Your task to perform on an android device: Play the last video I watched on Youtube Image 0: 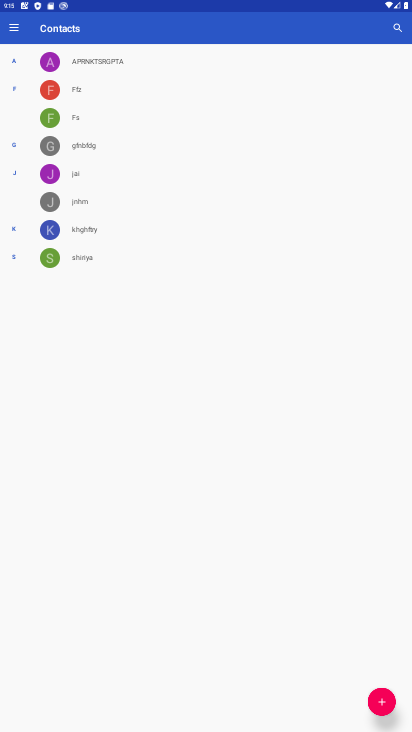
Step 0: press home button
Your task to perform on an android device: Play the last video I watched on Youtube Image 1: 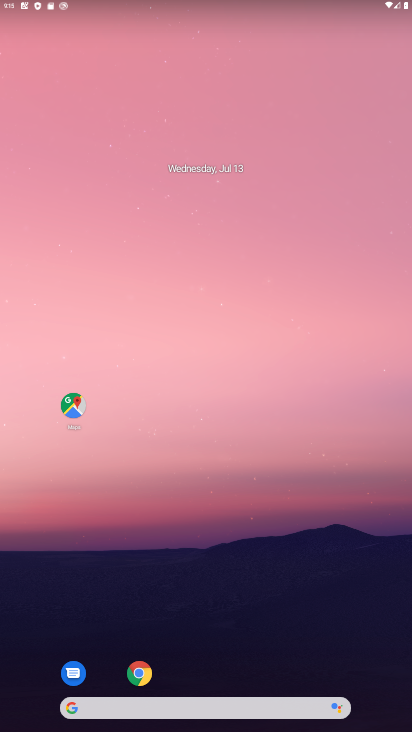
Step 1: drag from (229, 630) to (337, 29)
Your task to perform on an android device: Play the last video I watched on Youtube Image 2: 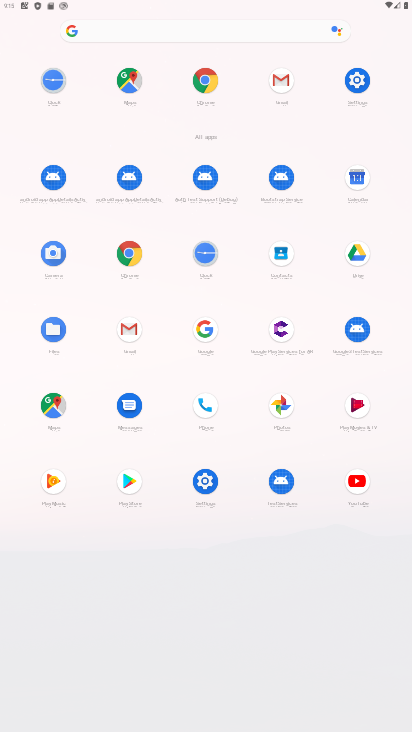
Step 2: click (360, 472)
Your task to perform on an android device: Play the last video I watched on Youtube Image 3: 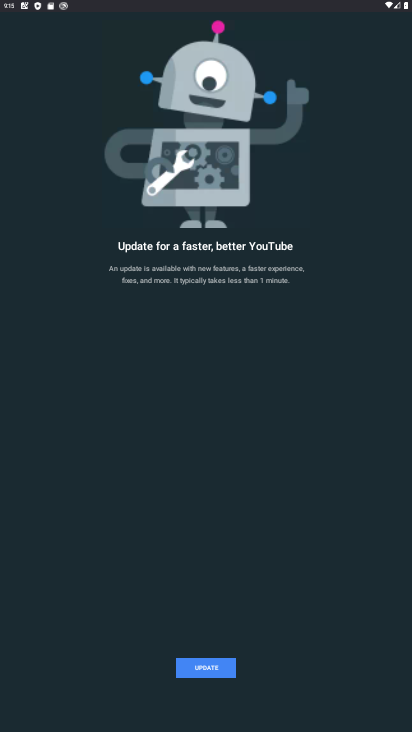
Step 3: click (202, 674)
Your task to perform on an android device: Play the last video I watched on Youtube Image 4: 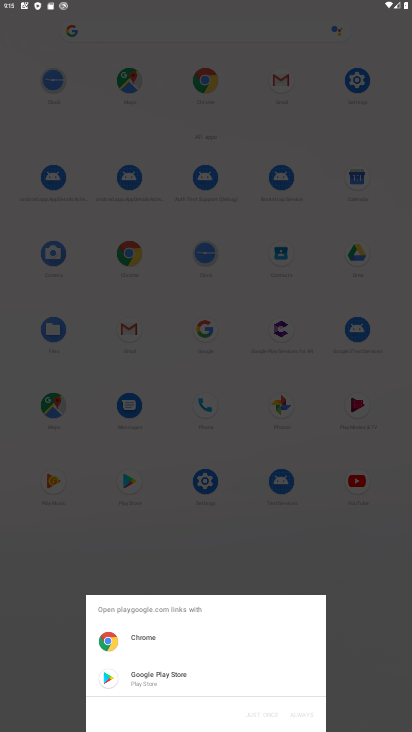
Step 4: click (208, 680)
Your task to perform on an android device: Play the last video I watched on Youtube Image 5: 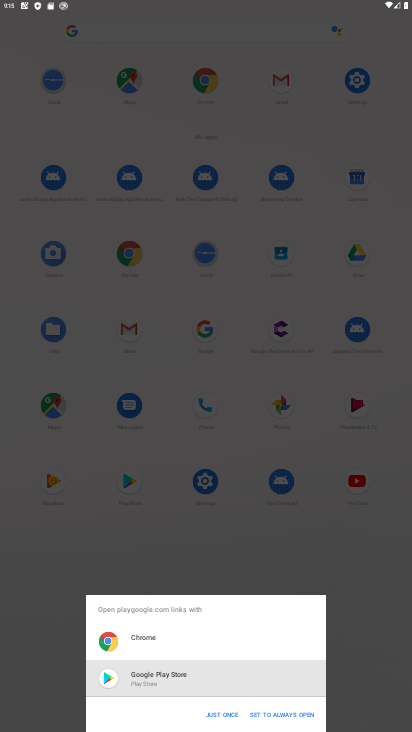
Step 5: click (222, 714)
Your task to perform on an android device: Play the last video I watched on Youtube Image 6: 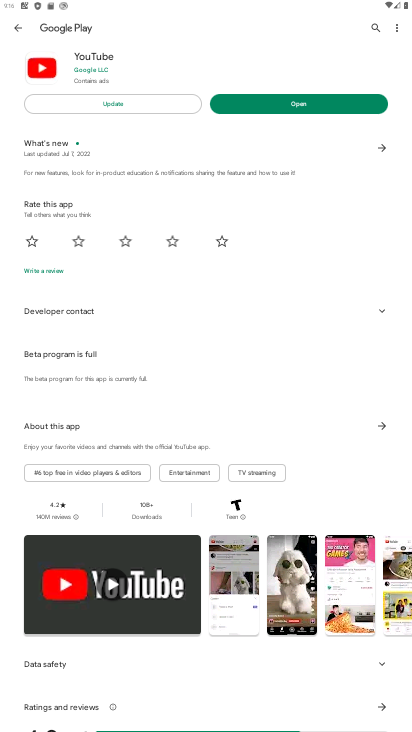
Step 6: click (140, 99)
Your task to perform on an android device: Play the last video I watched on Youtube Image 7: 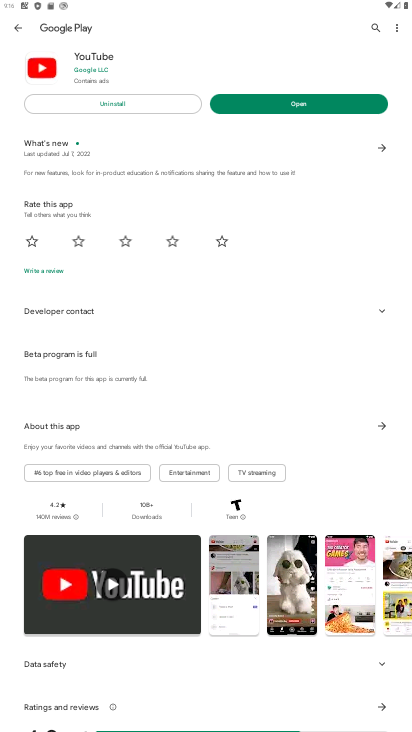
Step 7: click (307, 99)
Your task to perform on an android device: Play the last video I watched on Youtube Image 8: 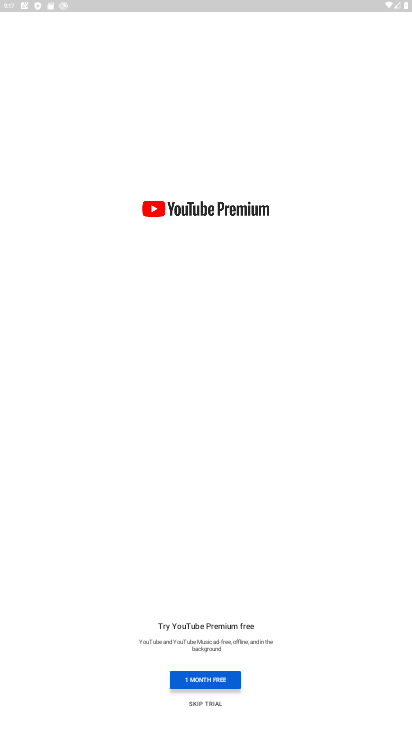
Step 8: click (201, 700)
Your task to perform on an android device: Play the last video I watched on Youtube Image 9: 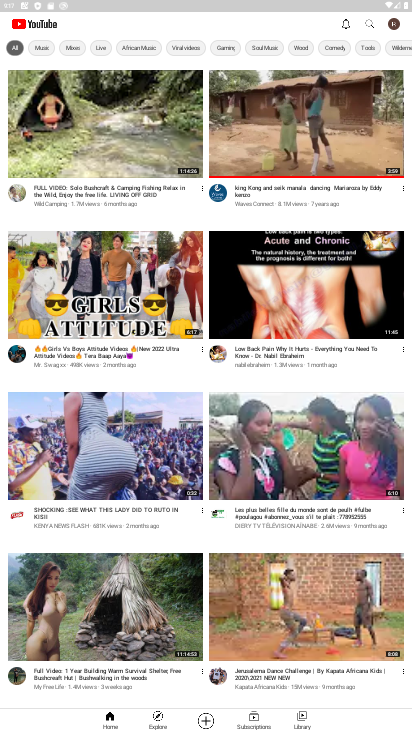
Step 9: click (299, 722)
Your task to perform on an android device: Play the last video I watched on Youtube Image 10: 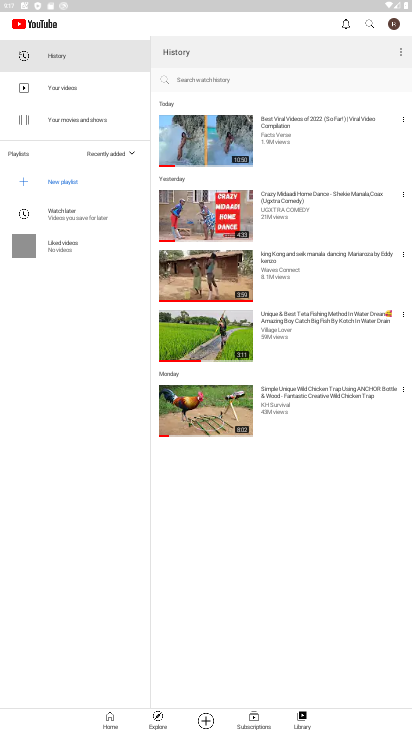
Step 10: click (262, 126)
Your task to perform on an android device: Play the last video I watched on Youtube Image 11: 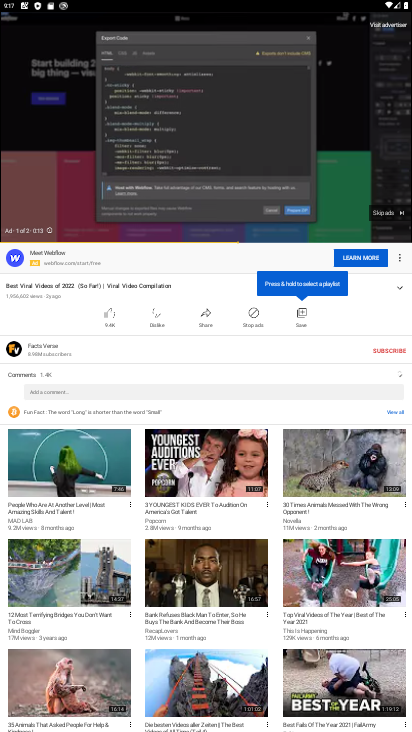
Step 11: click (385, 212)
Your task to perform on an android device: Play the last video I watched on Youtube Image 12: 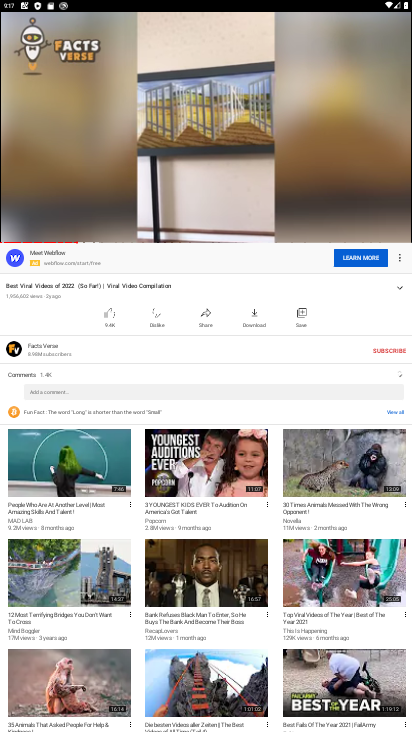
Step 12: task complete